Your task to perform on an android device: What's the weather like in New York? Image 0: 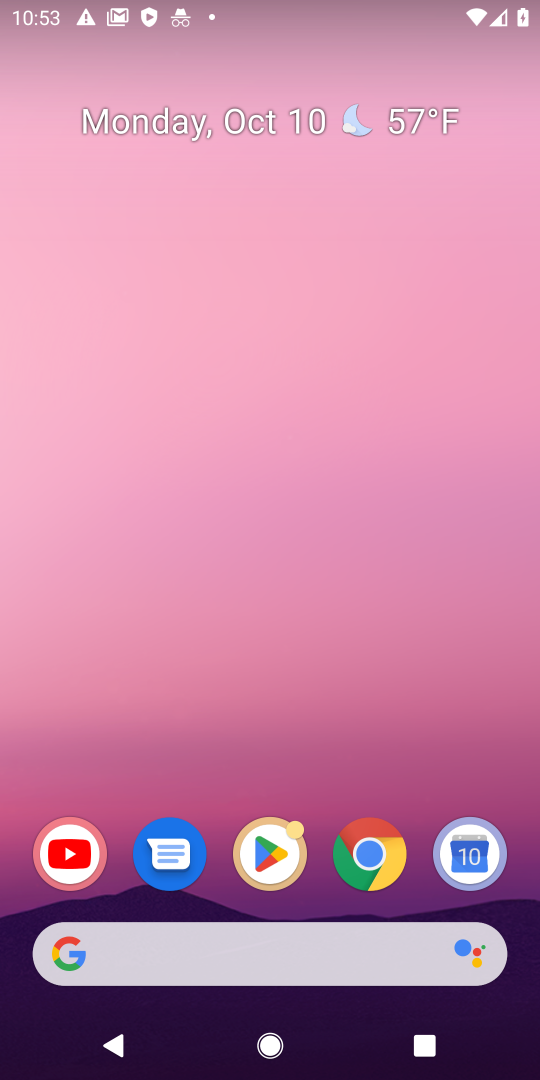
Step 0: press home button
Your task to perform on an android device: What's the weather like in New York? Image 1: 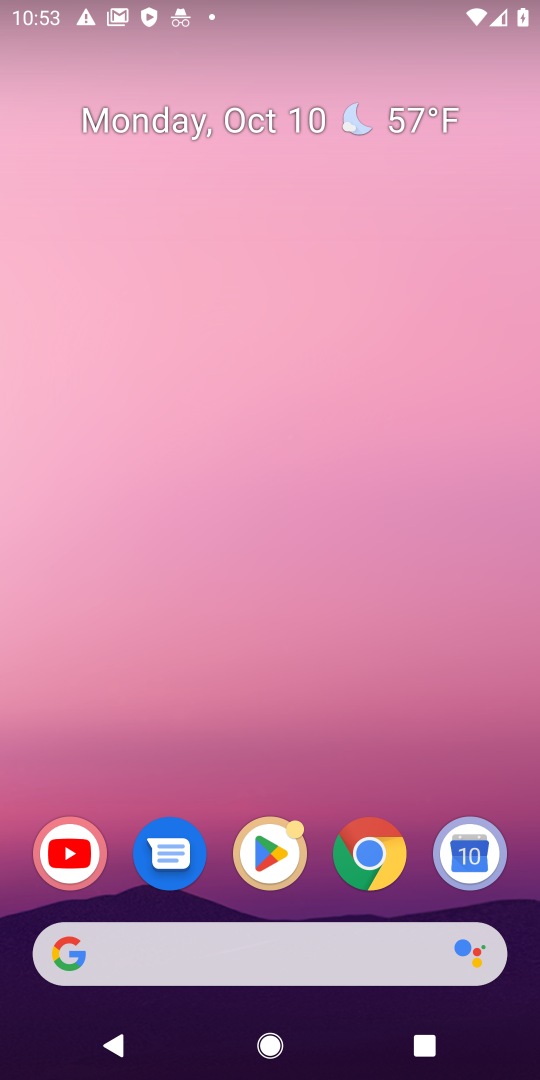
Step 1: press home button
Your task to perform on an android device: What's the weather like in New York? Image 2: 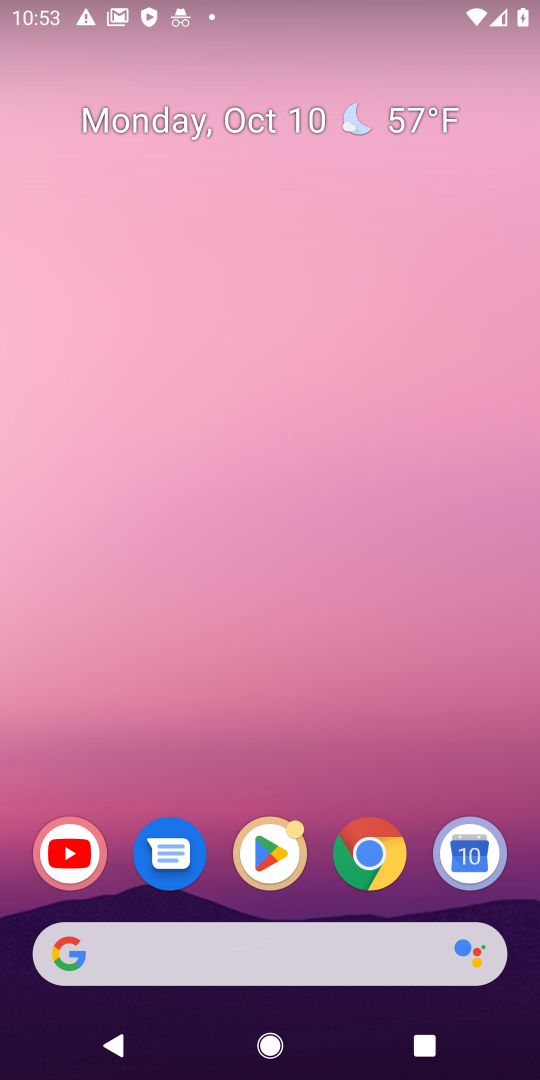
Step 2: click (332, 965)
Your task to perform on an android device: What's the weather like in New York? Image 3: 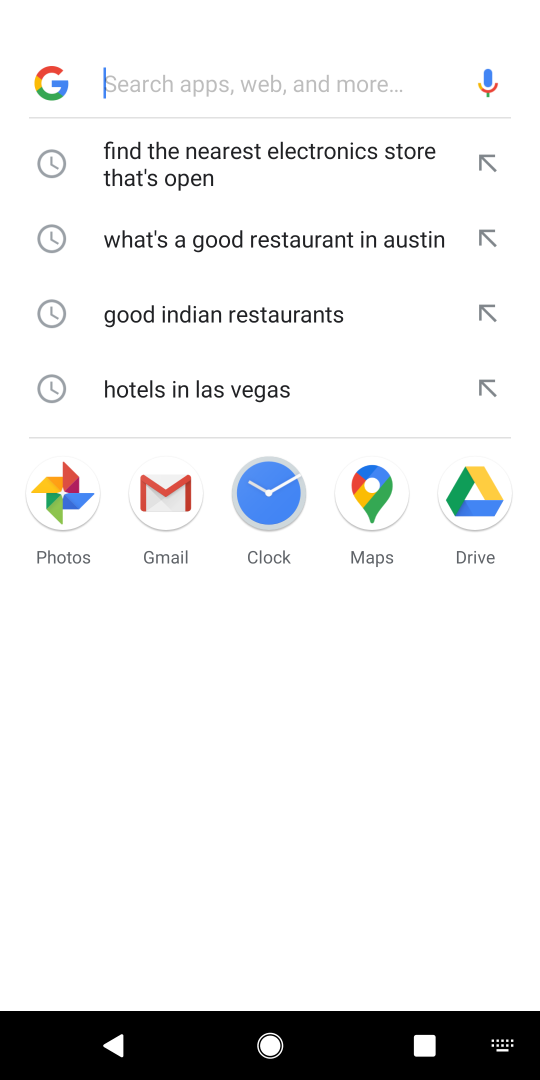
Step 3: type "What's the weather like in New York"
Your task to perform on an android device: What's the weather like in New York? Image 4: 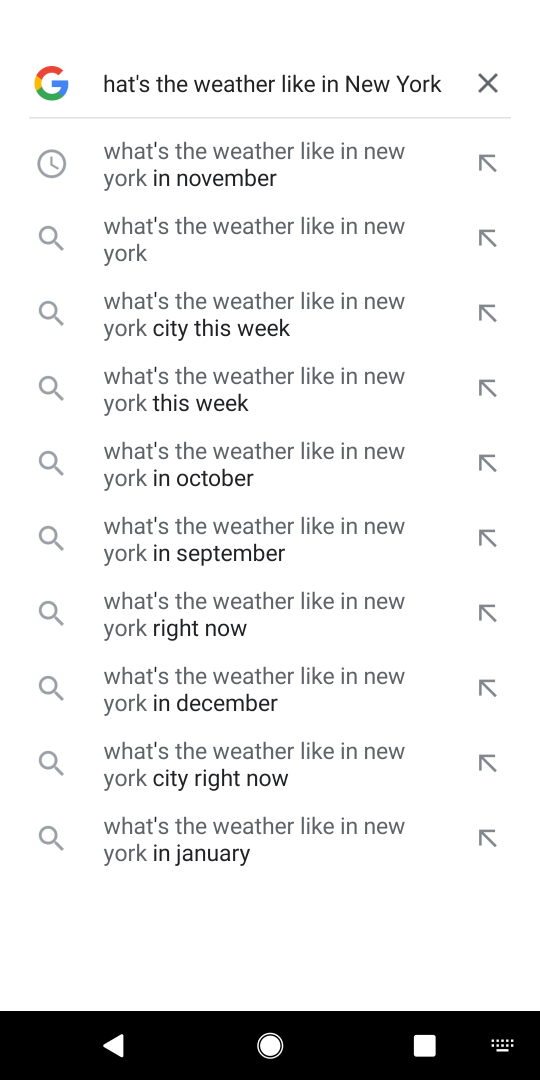
Step 4: press enter
Your task to perform on an android device: What's the weather like in New York? Image 5: 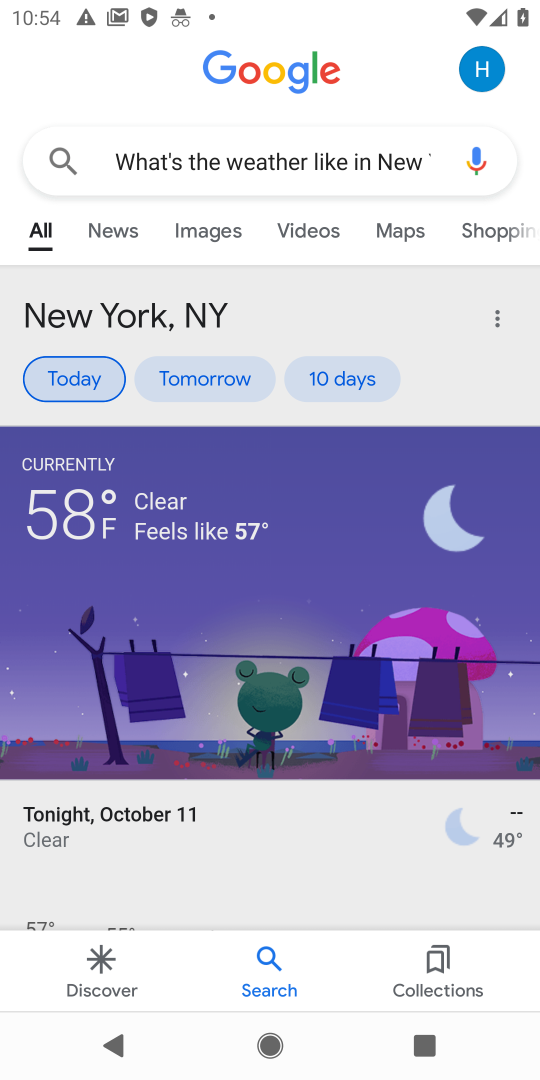
Step 5: task complete